Your task to perform on an android device: Open notification settings Image 0: 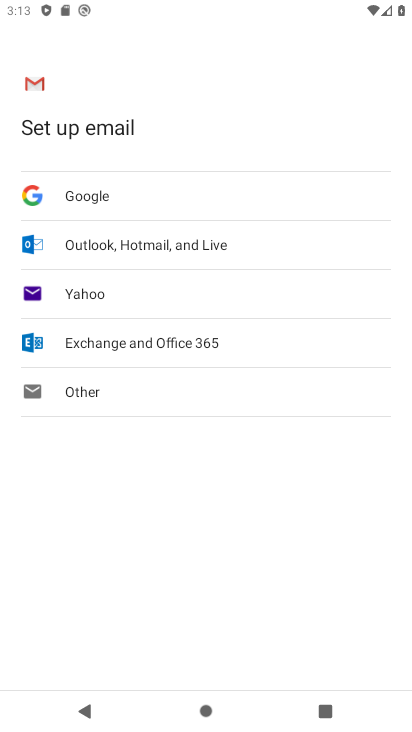
Step 0: press home button
Your task to perform on an android device: Open notification settings Image 1: 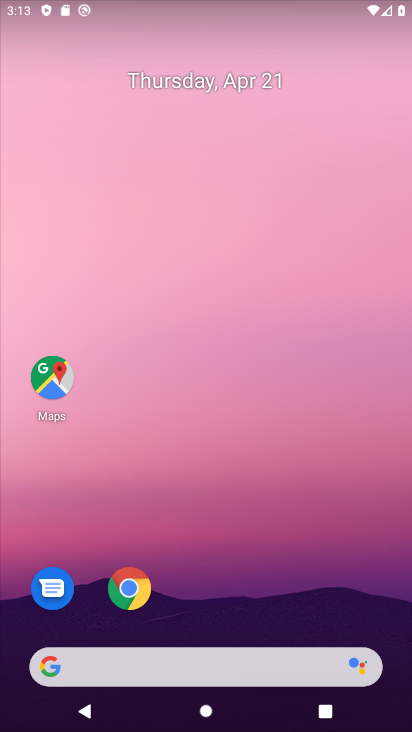
Step 1: drag from (184, 661) to (209, 25)
Your task to perform on an android device: Open notification settings Image 2: 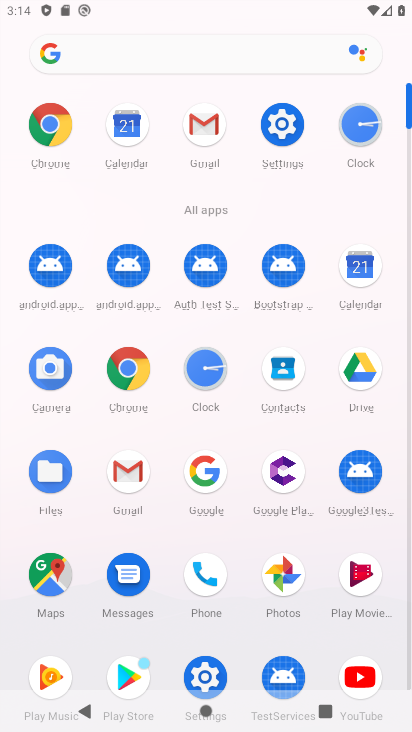
Step 2: click (206, 667)
Your task to perform on an android device: Open notification settings Image 3: 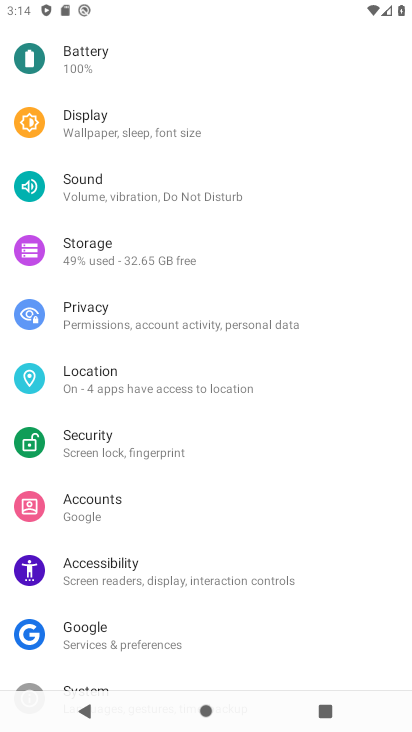
Step 3: drag from (108, 99) to (114, 618)
Your task to perform on an android device: Open notification settings Image 4: 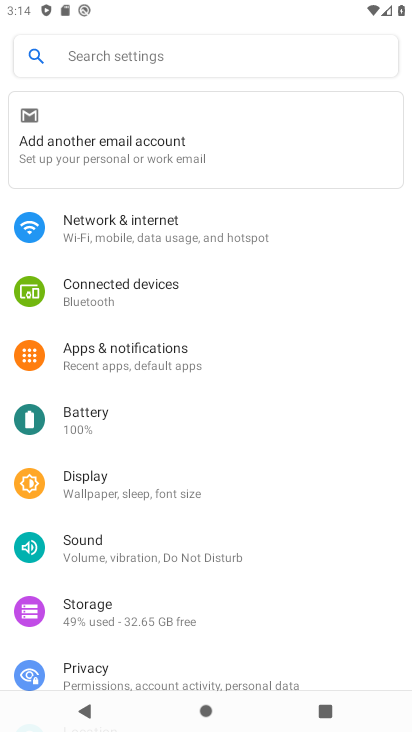
Step 4: click (152, 366)
Your task to perform on an android device: Open notification settings Image 5: 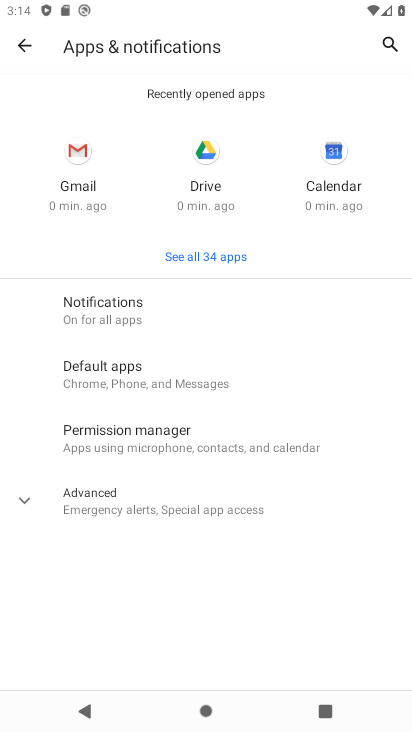
Step 5: task complete